Your task to perform on an android device: Search for the best rated Bluetooth earbuds on Ali express Image 0: 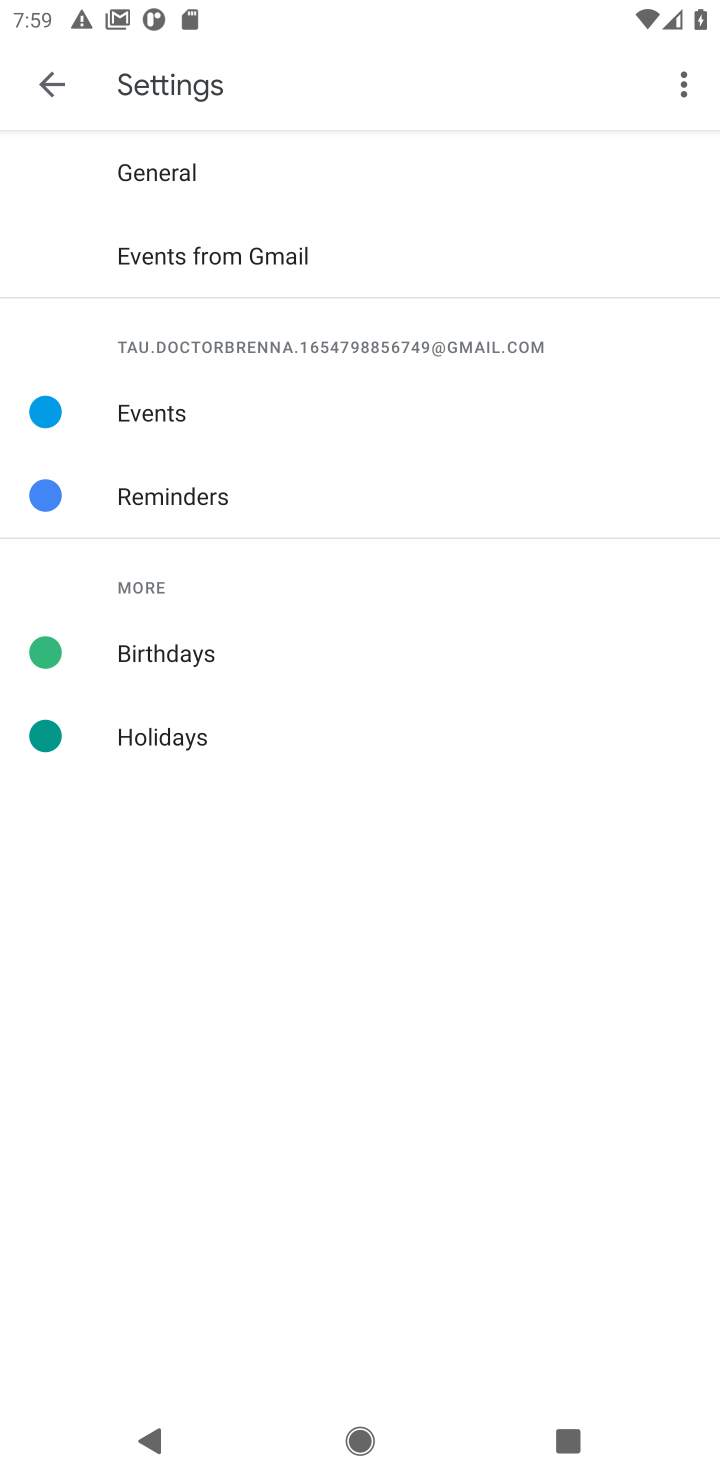
Step 0: press home button
Your task to perform on an android device: Search for the best rated Bluetooth earbuds on Ali express Image 1: 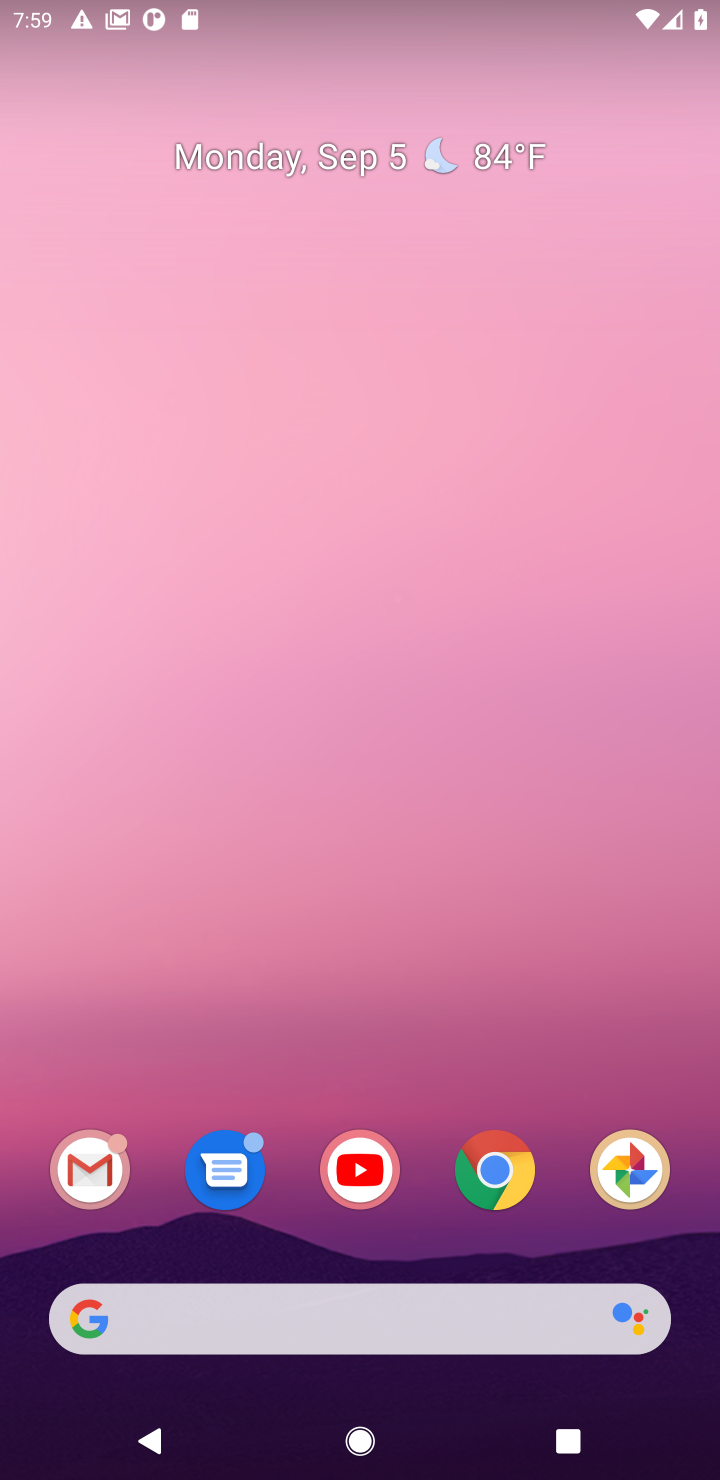
Step 1: click (518, 1163)
Your task to perform on an android device: Search for the best rated Bluetooth earbuds on Ali express Image 2: 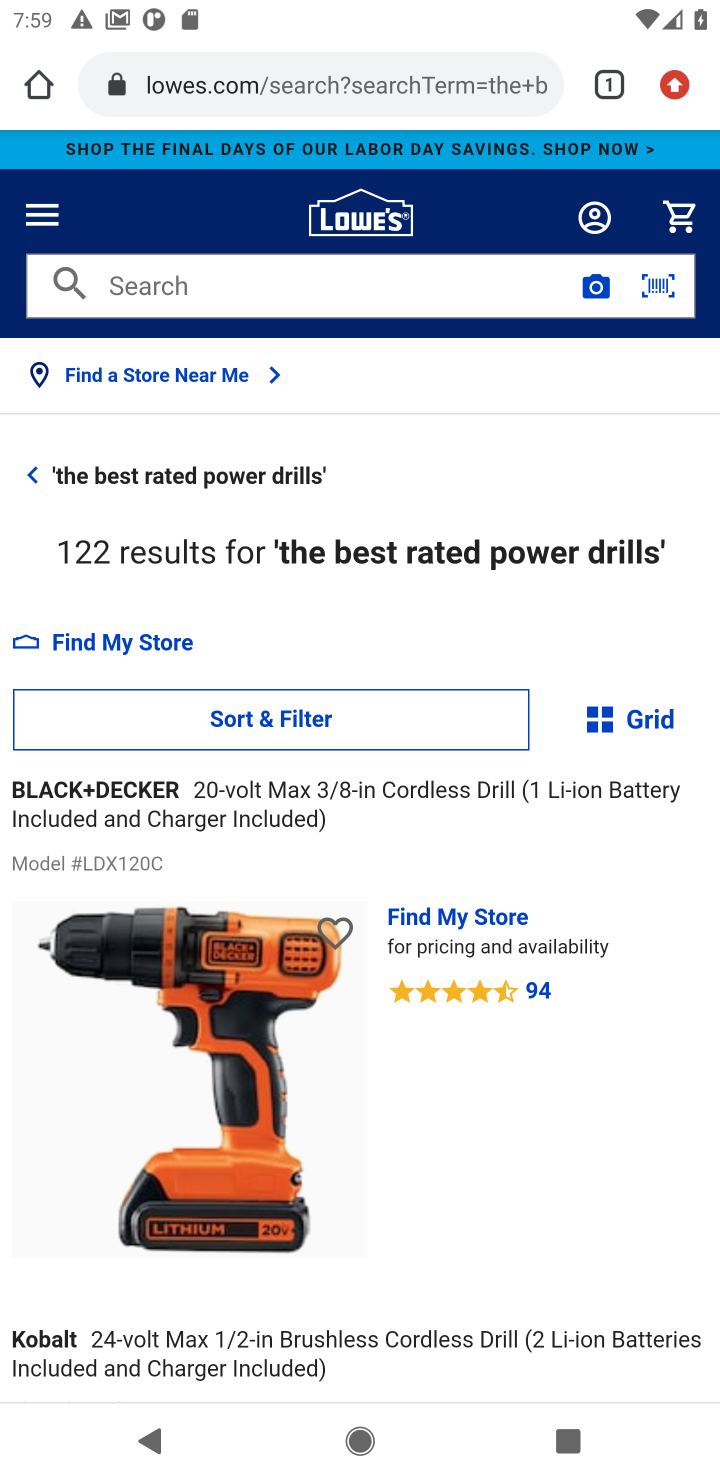
Step 2: click (379, 100)
Your task to perform on an android device: Search for the best rated Bluetooth earbuds on Ali express Image 3: 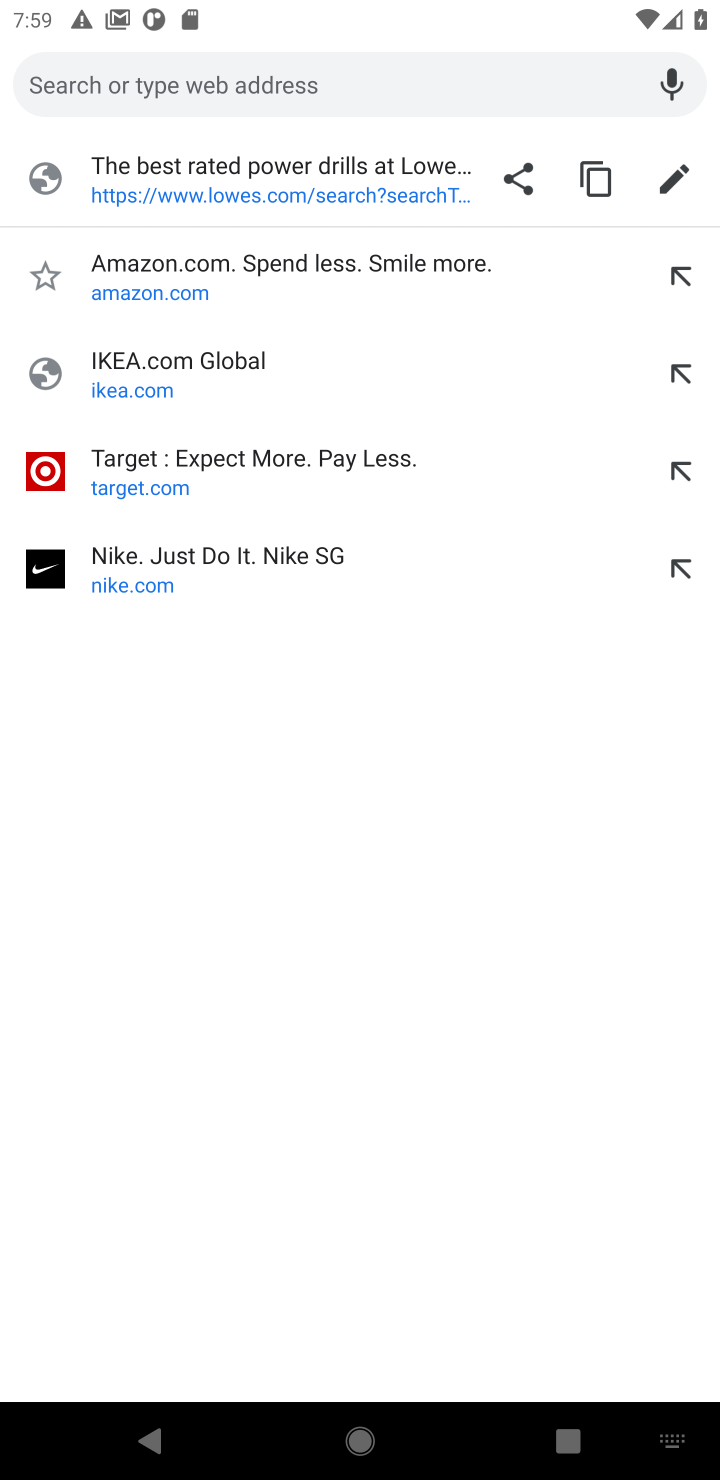
Step 3: type "AliExpress"
Your task to perform on an android device: Search for the best rated Bluetooth earbuds on Ali express Image 4: 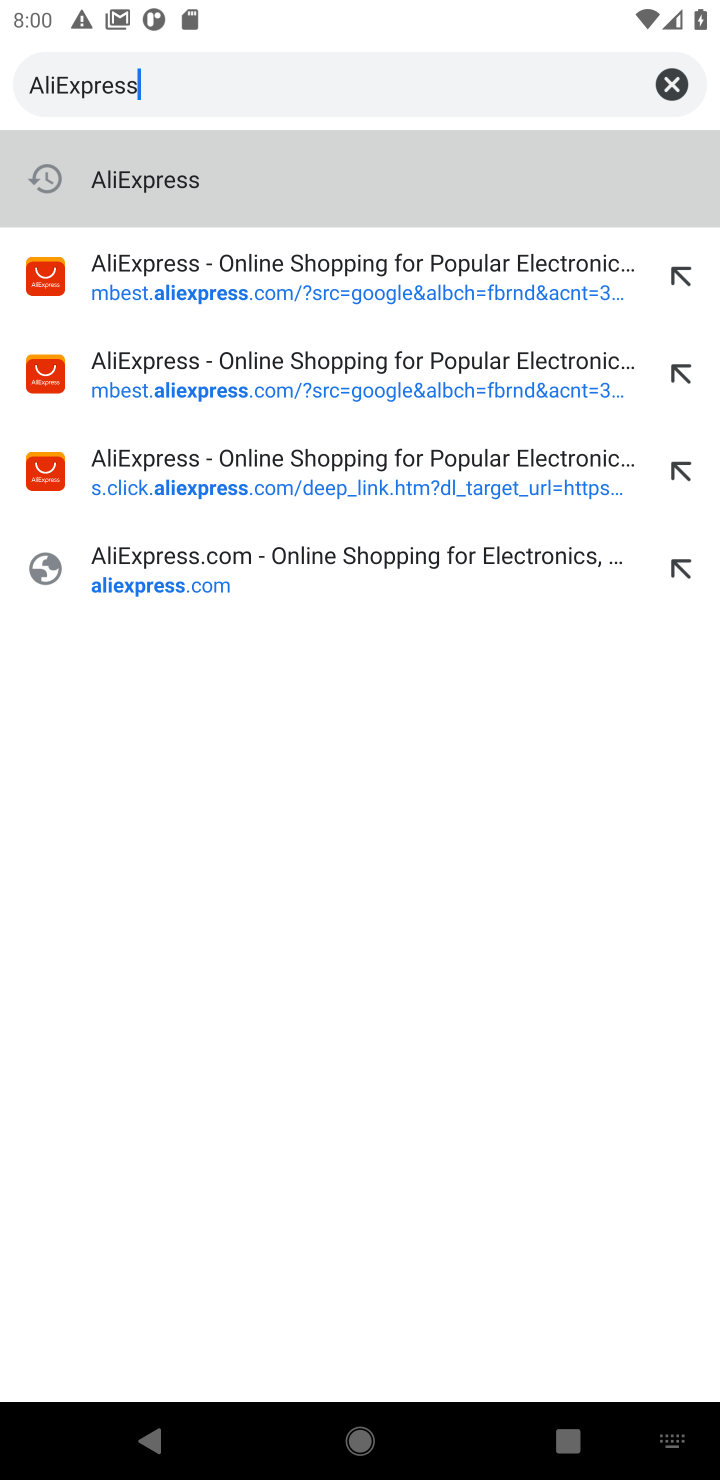
Step 4: click (391, 278)
Your task to perform on an android device: Search for the best rated Bluetooth earbuds on Ali express Image 5: 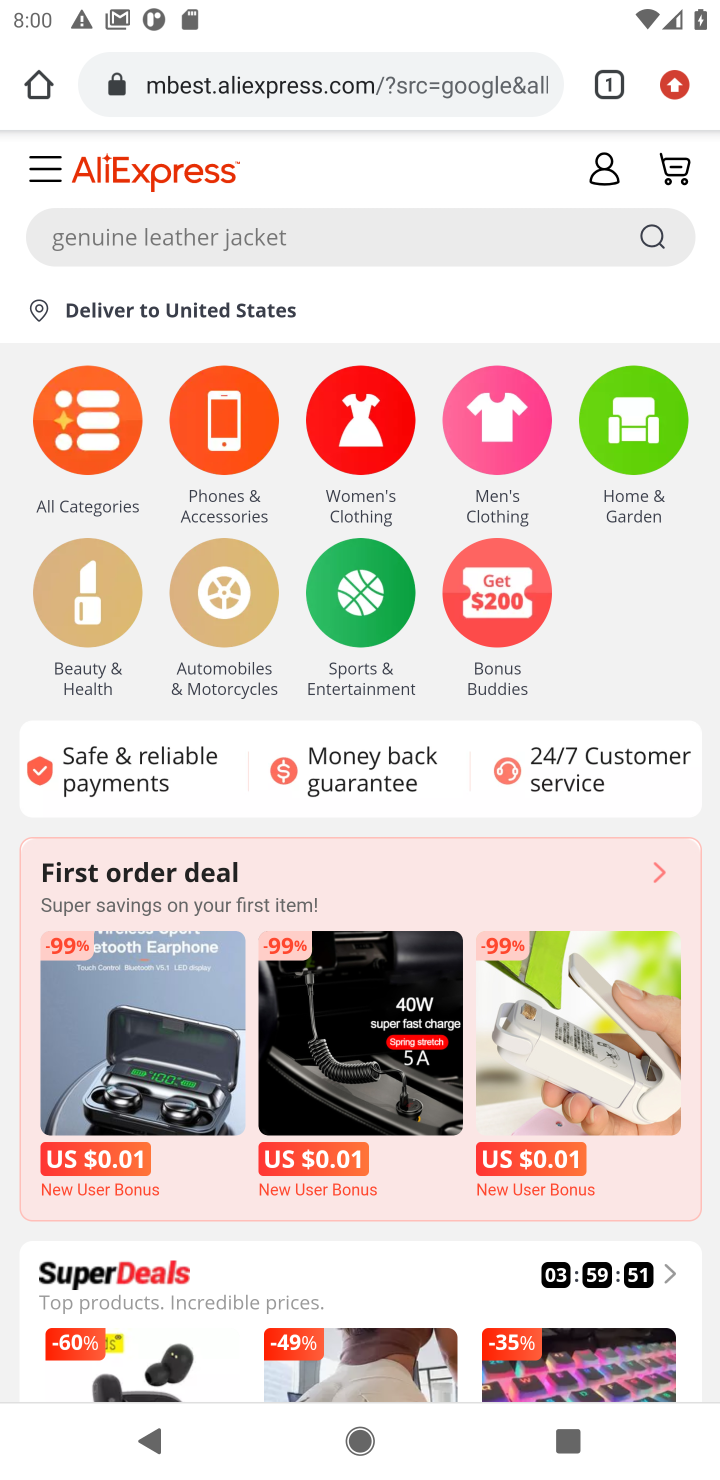
Step 5: click (369, 233)
Your task to perform on an android device: Search for the best rated Bluetooth earbuds on Ali express Image 6: 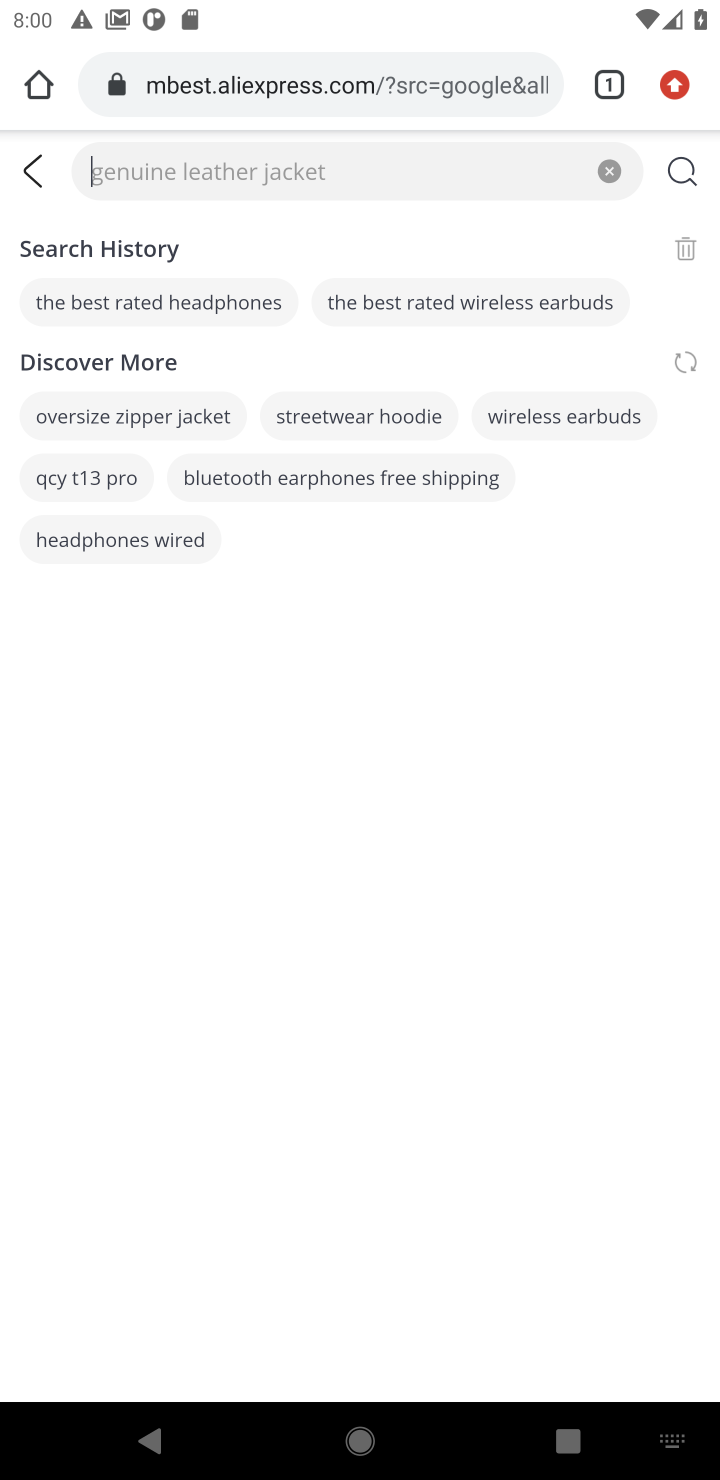
Step 6: type " the best rated Bluetooth earbuds"
Your task to perform on an android device: Search for the best rated Bluetooth earbuds on Ali express Image 7: 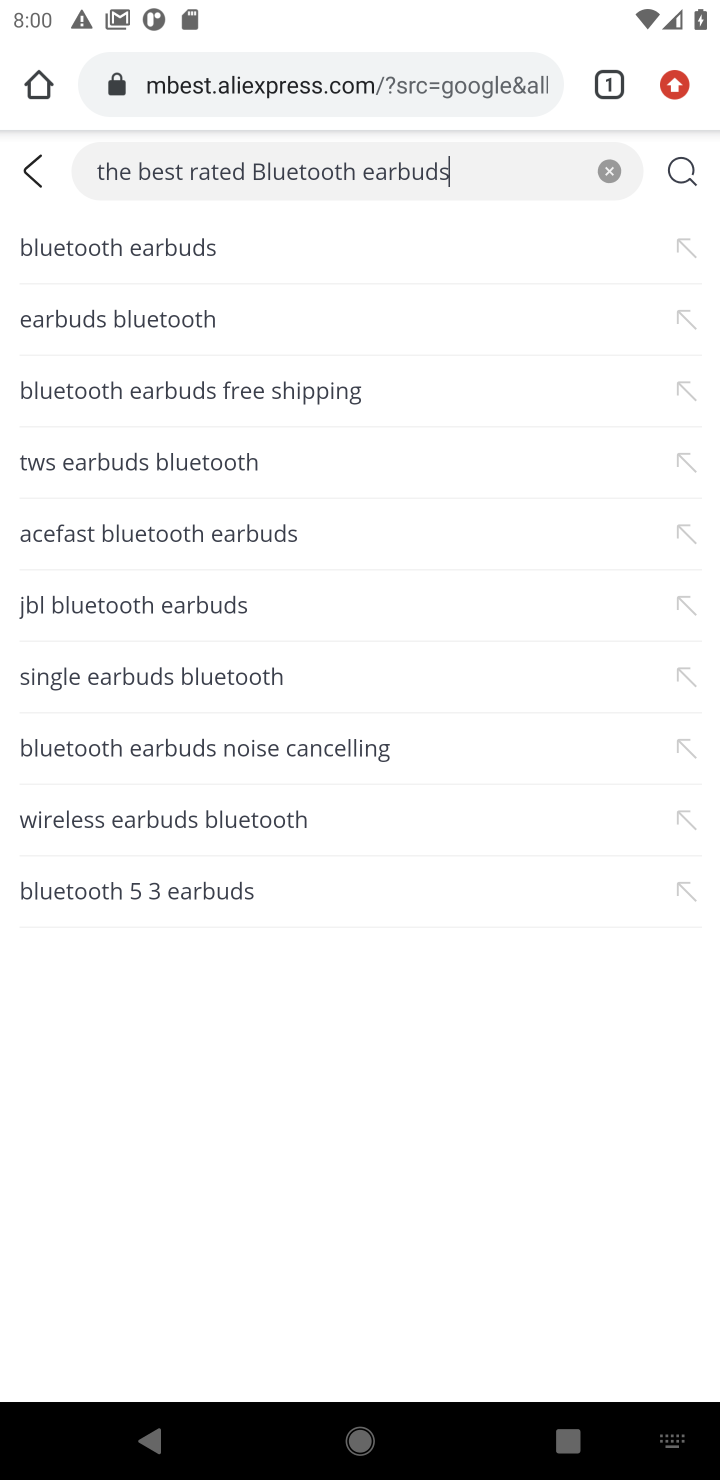
Step 7: click (696, 163)
Your task to perform on an android device: Search for the best rated Bluetooth earbuds on Ali express Image 8: 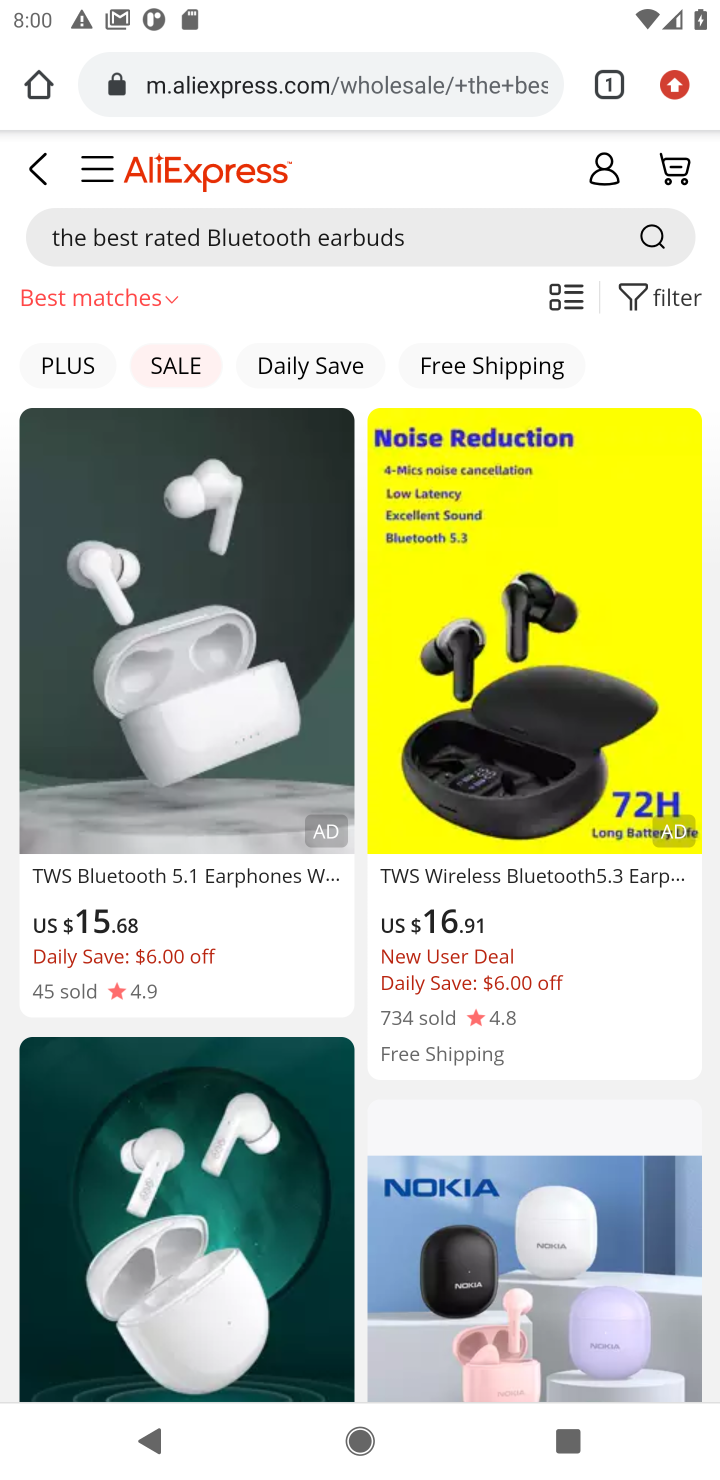
Step 8: task complete